Your task to perform on an android device: When is my next appointment? Image 0: 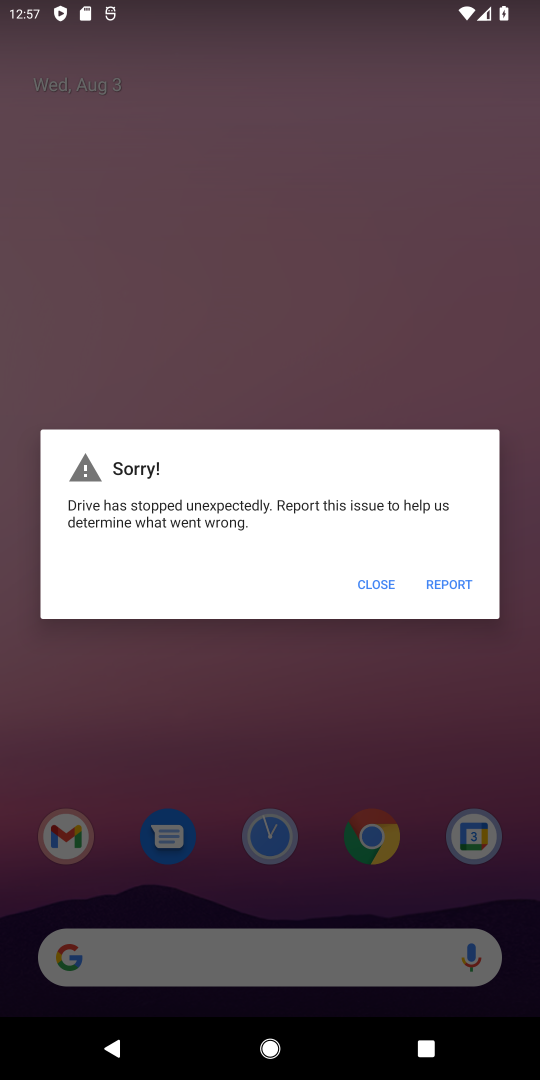
Step 0: drag from (231, 882) to (250, 305)
Your task to perform on an android device: When is my next appointment? Image 1: 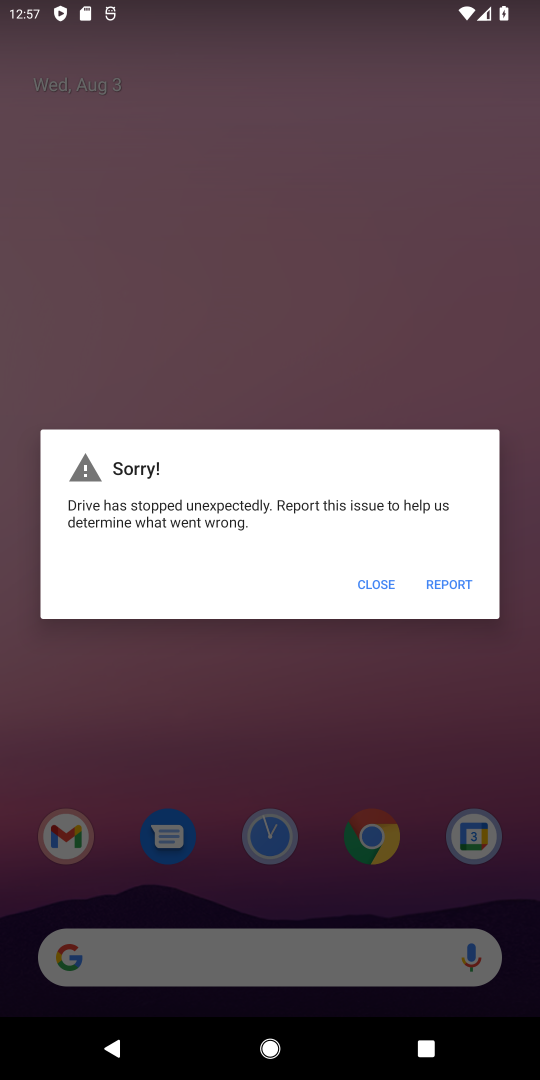
Step 1: press home button
Your task to perform on an android device: When is my next appointment? Image 2: 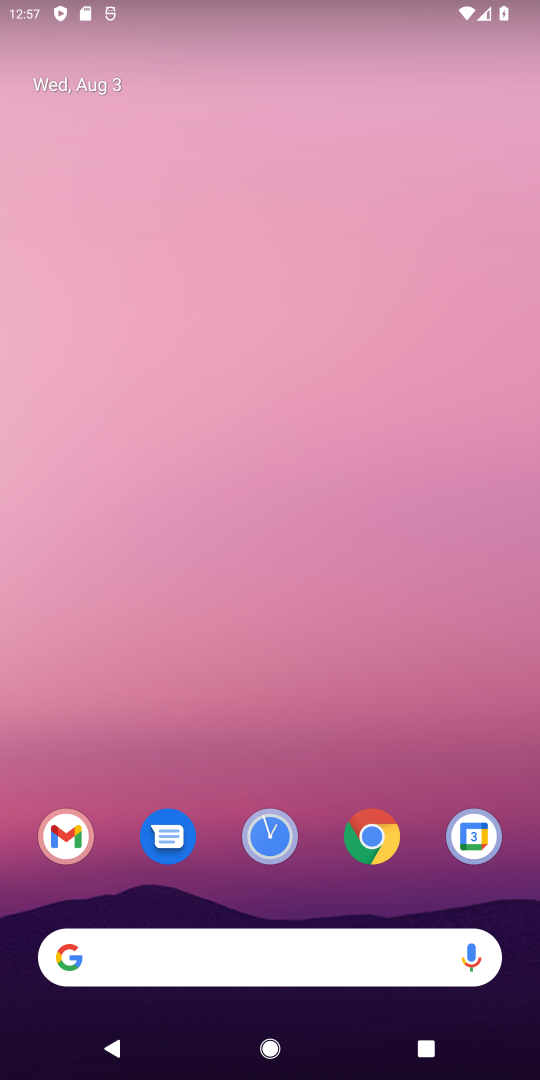
Step 2: drag from (291, 864) to (287, 107)
Your task to perform on an android device: When is my next appointment? Image 3: 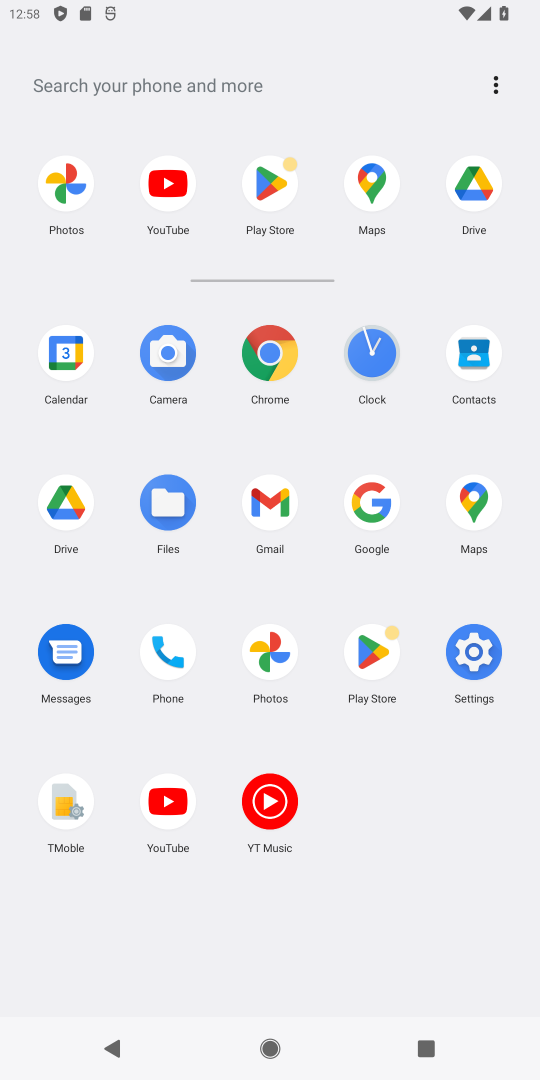
Step 3: click (53, 349)
Your task to perform on an android device: When is my next appointment? Image 4: 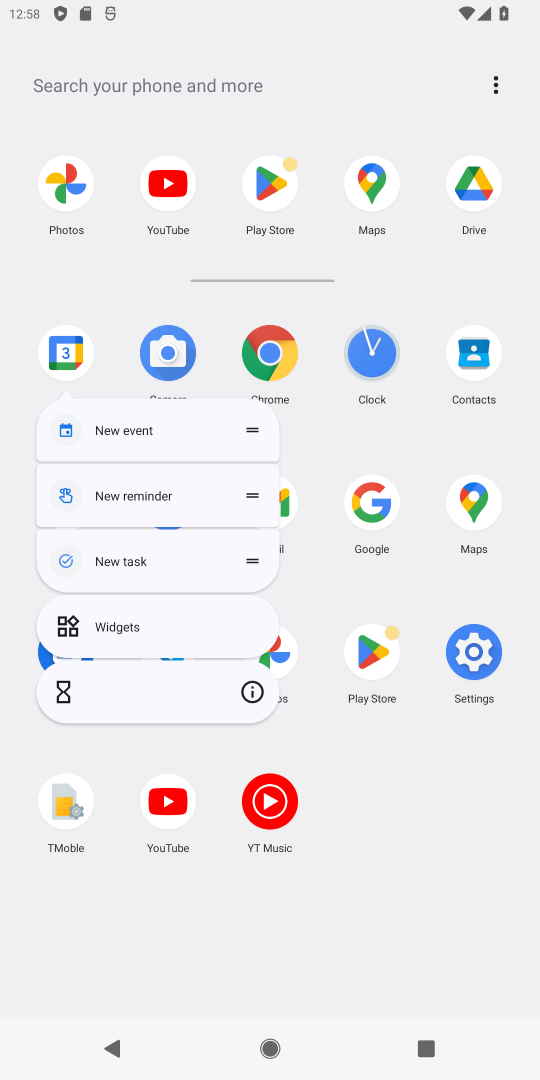
Step 4: click (251, 695)
Your task to perform on an android device: When is my next appointment? Image 5: 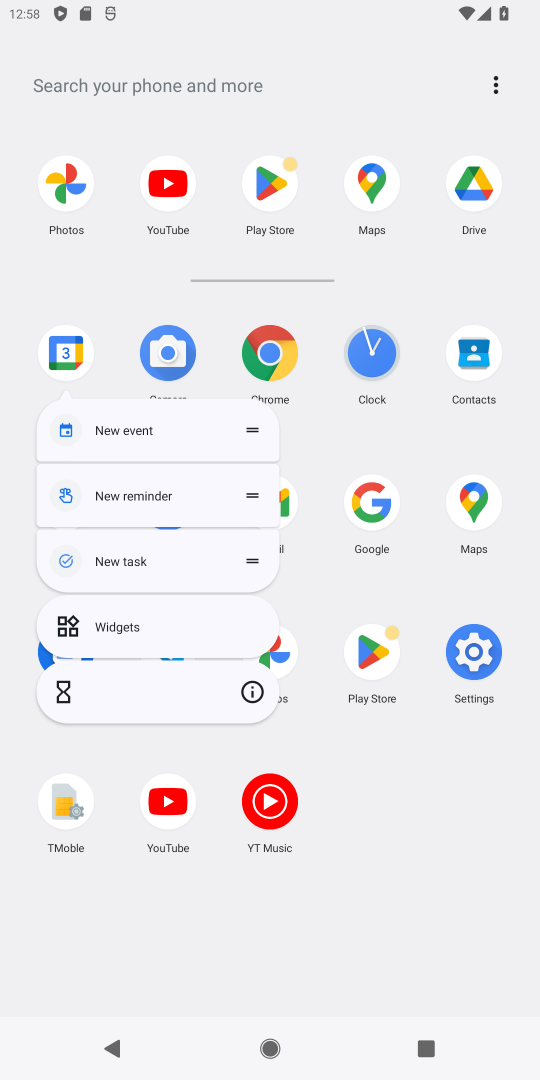
Step 5: click (245, 689)
Your task to perform on an android device: When is my next appointment? Image 6: 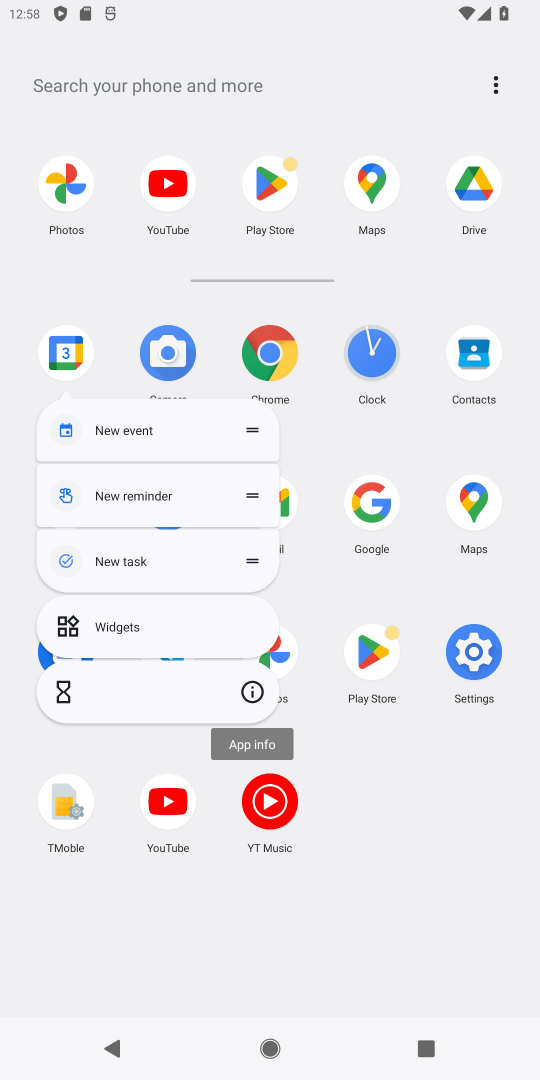
Step 6: click (245, 689)
Your task to perform on an android device: When is my next appointment? Image 7: 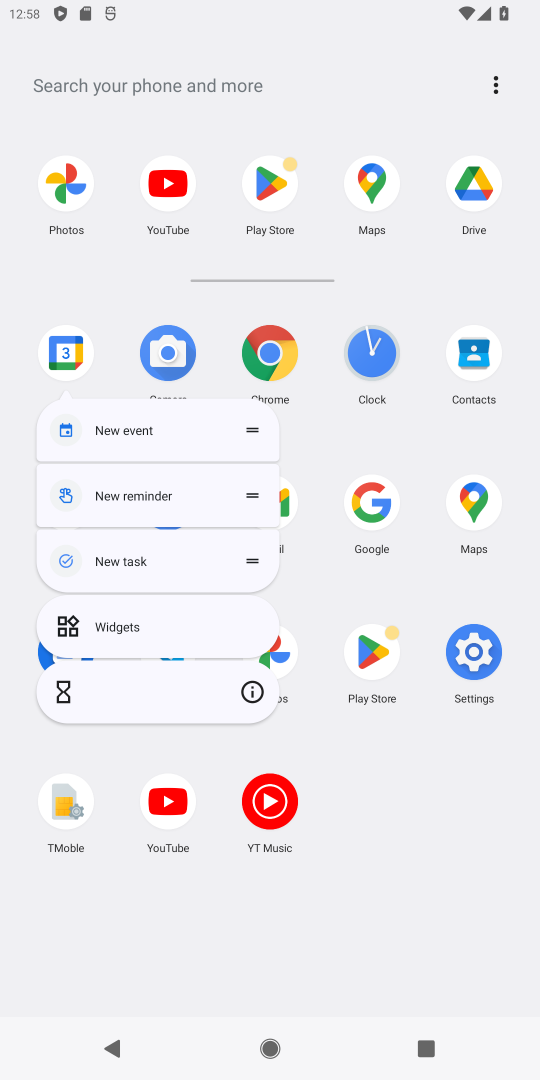
Step 7: click (247, 689)
Your task to perform on an android device: When is my next appointment? Image 8: 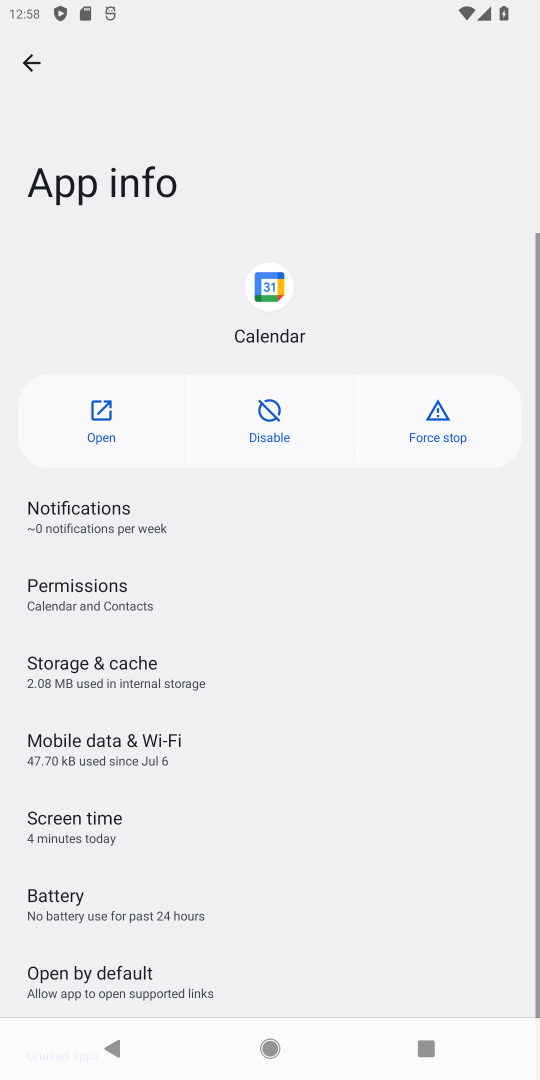
Step 8: click (108, 405)
Your task to perform on an android device: When is my next appointment? Image 9: 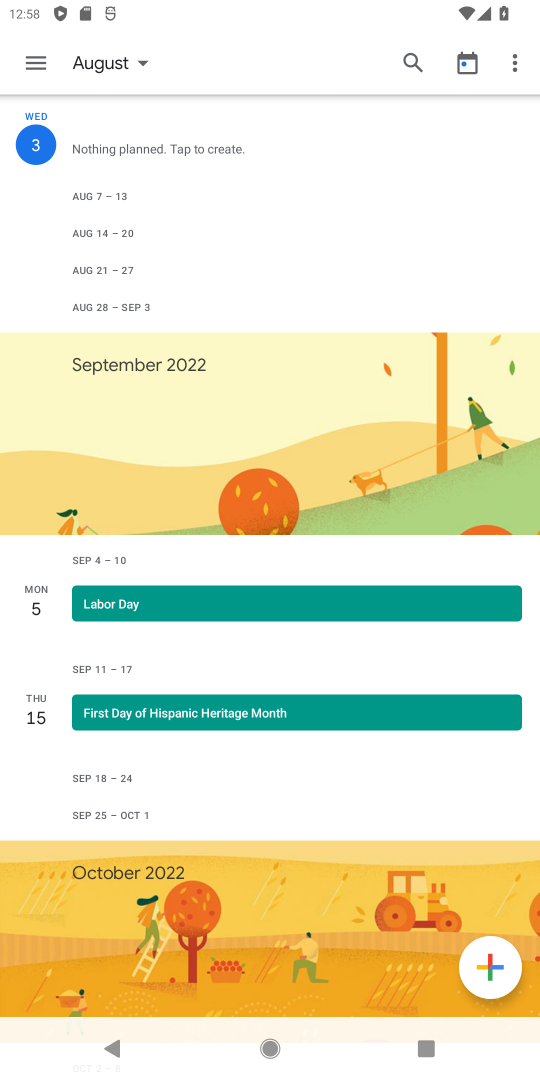
Step 9: click (126, 56)
Your task to perform on an android device: When is my next appointment? Image 10: 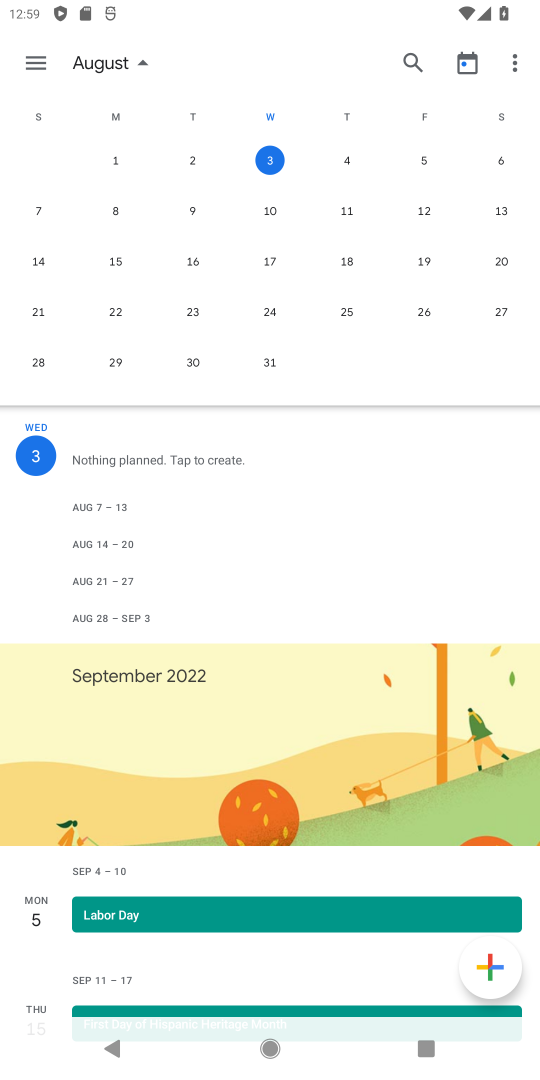
Step 10: click (273, 158)
Your task to perform on an android device: When is my next appointment? Image 11: 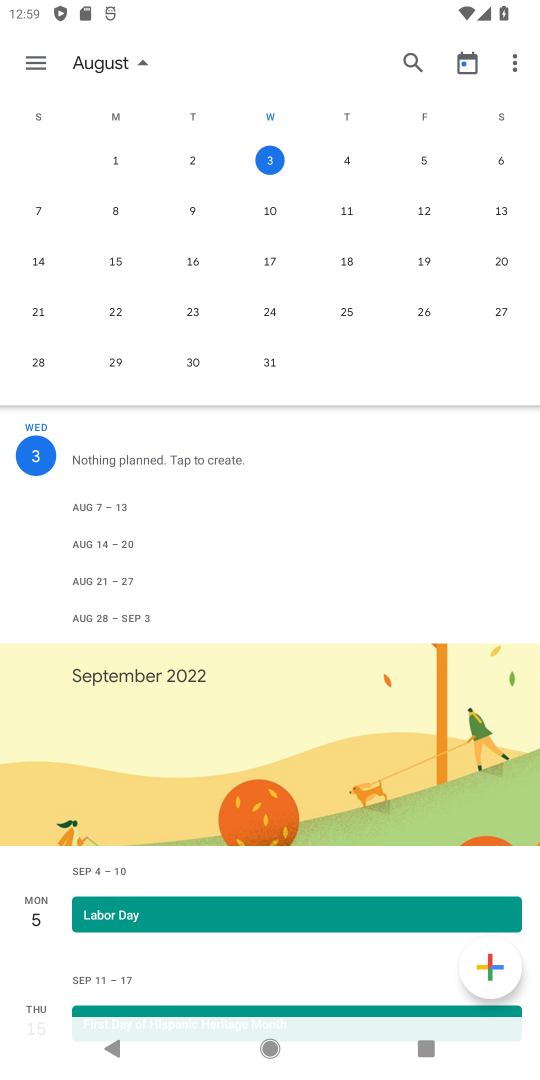
Step 11: task complete